Your task to perform on an android device: choose inbox layout in the gmail app Image 0: 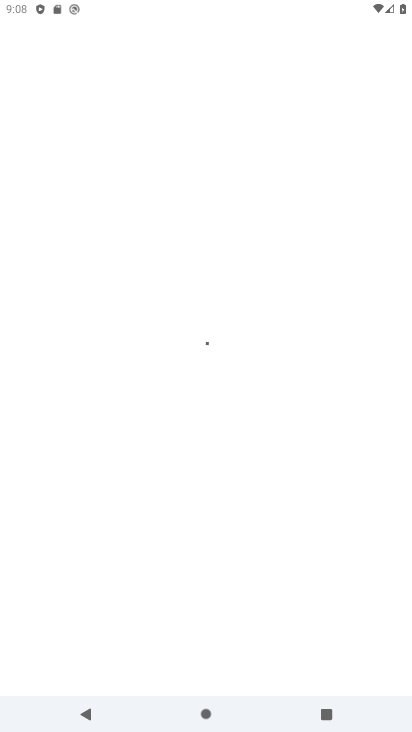
Step 0: press home button
Your task to perform on an android device: choose inbox layout in the gmail app Image 1: 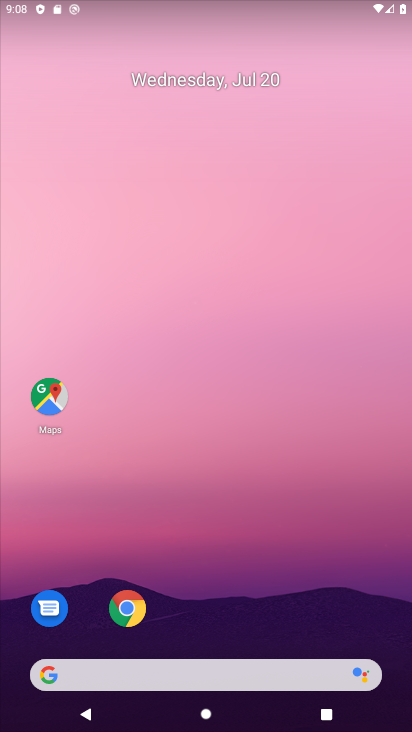
Step 1: drag from (247, 639) to (208, 241)
Your task to perform on an android device: choose inbox layout in the gmail app Image 2: 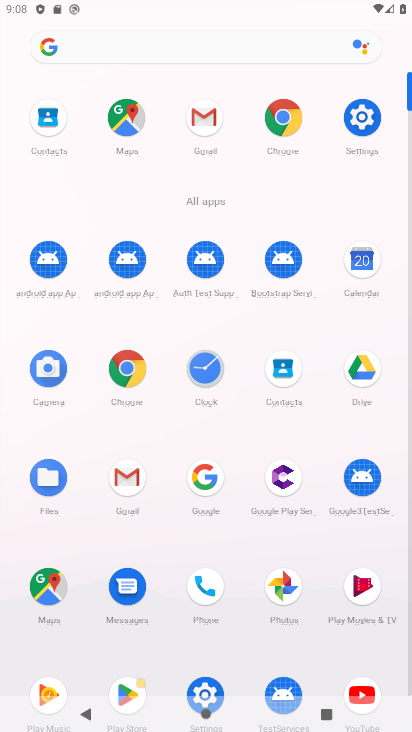
Step 2: click (210, 117)
Your task to perform on an android device: choose inbox layout in the gmail app Image 3: 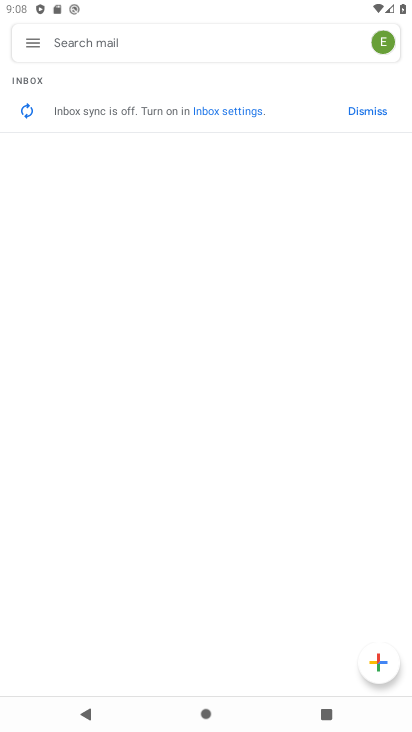
Step 3: click (26, 46)
Your task to perform on an android device: choose inbox layout in the gmail app Image 4: 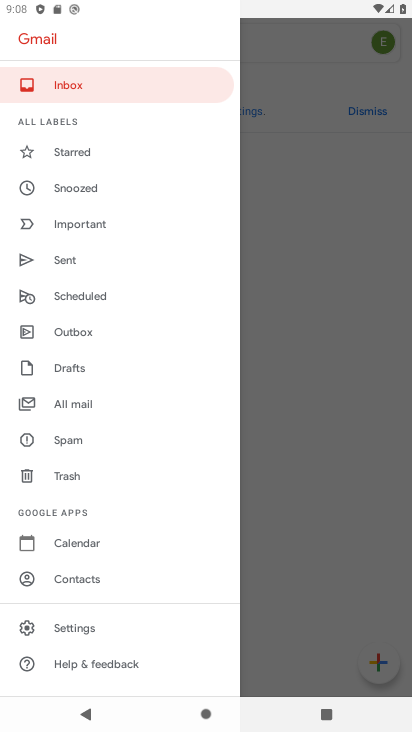
Step 4: click (100, 627)
Your task to perform on an android device: choose inbox layout in the gmail app Image 5: 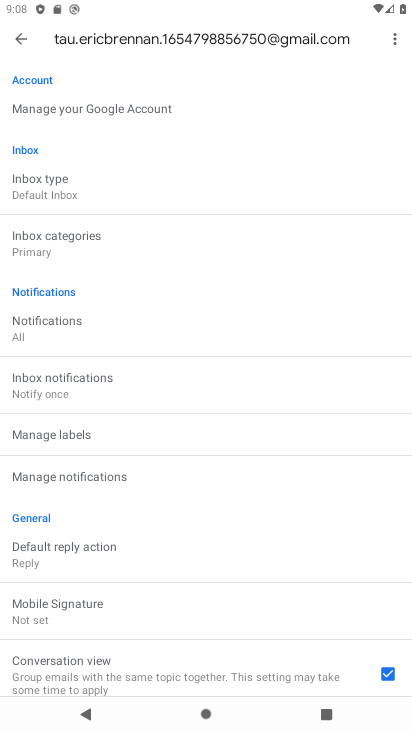
Step 5: click (110, 184)
Your task to perform on an android device: choose inbox layout in the gmail app Image 6: 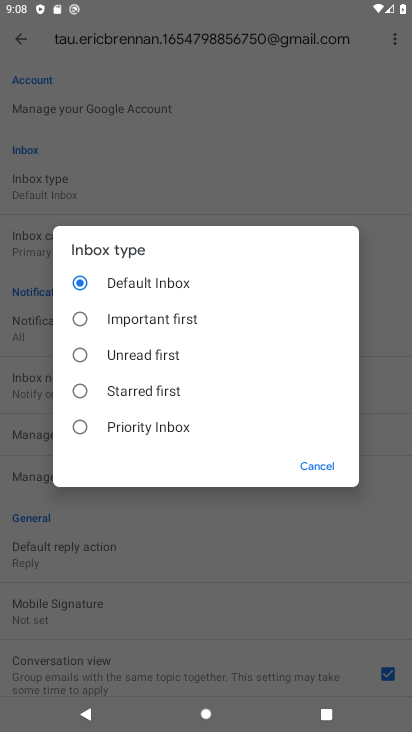
Step 6: click (158, 315)
Your task to perform on an android device: choose inbox layout in the gmail app Image 7: 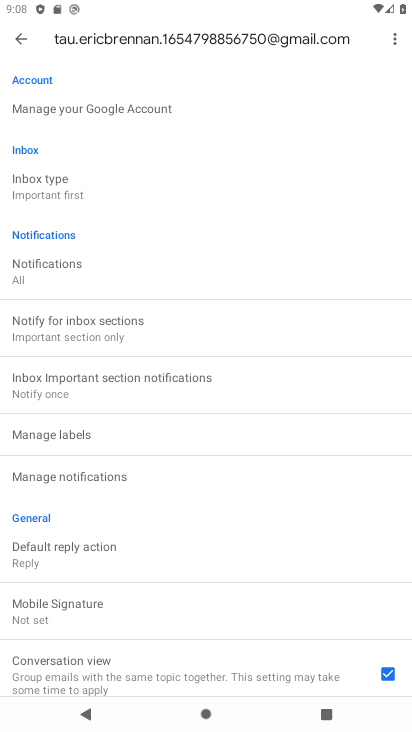
Step 7: task complete